Your task to perform on an android device: uninstall "Cash App" Image 0: 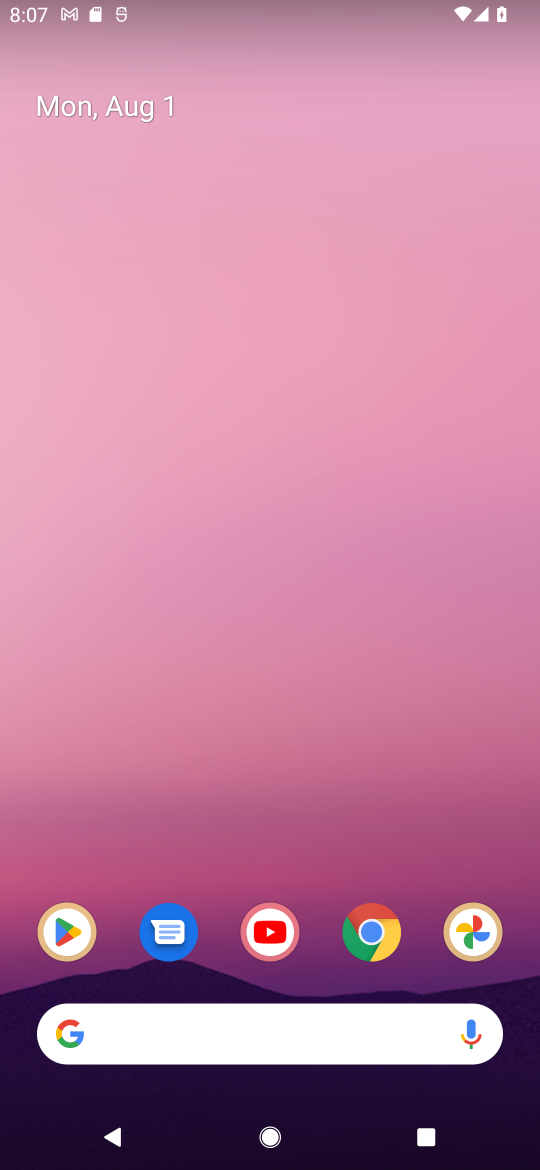
Step 0: click (71, 950)
Your task to perform on an android device: uninstall "Cash App" Image 1: 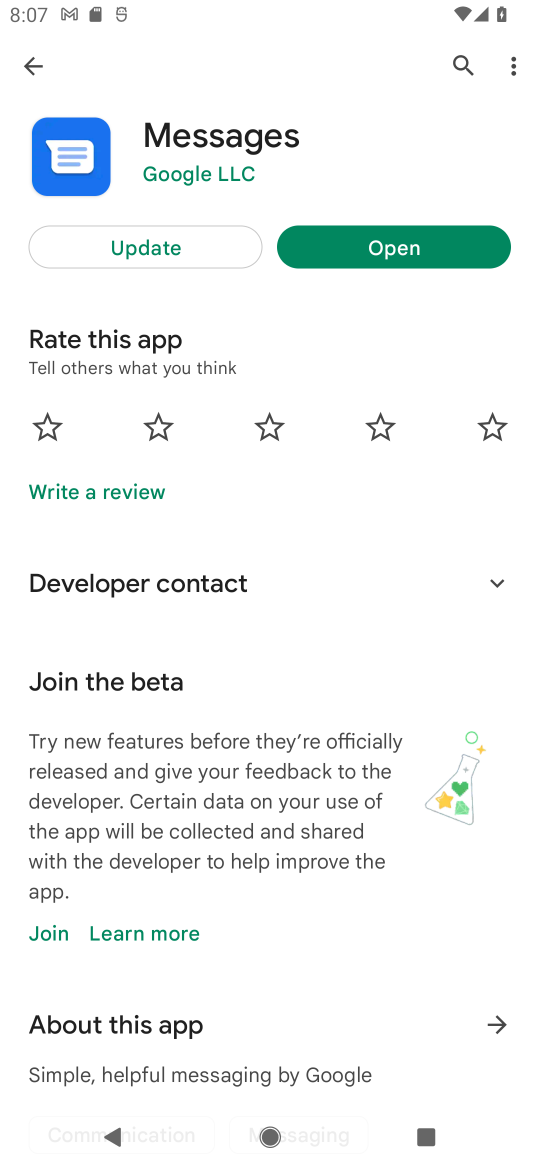
Step 1: click (25, 62)
Your task to perform on an android device: uninstall "Cash App" Image 2: 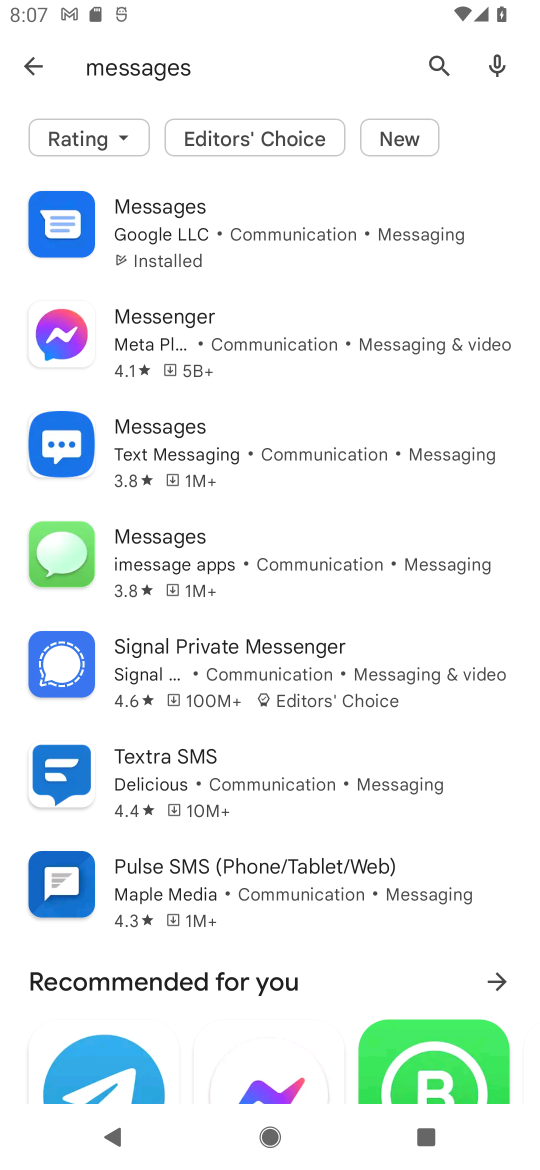
Step 2: click (38, 64)
Your task to perform on an android device: uninstall "Cash App" Image 3: 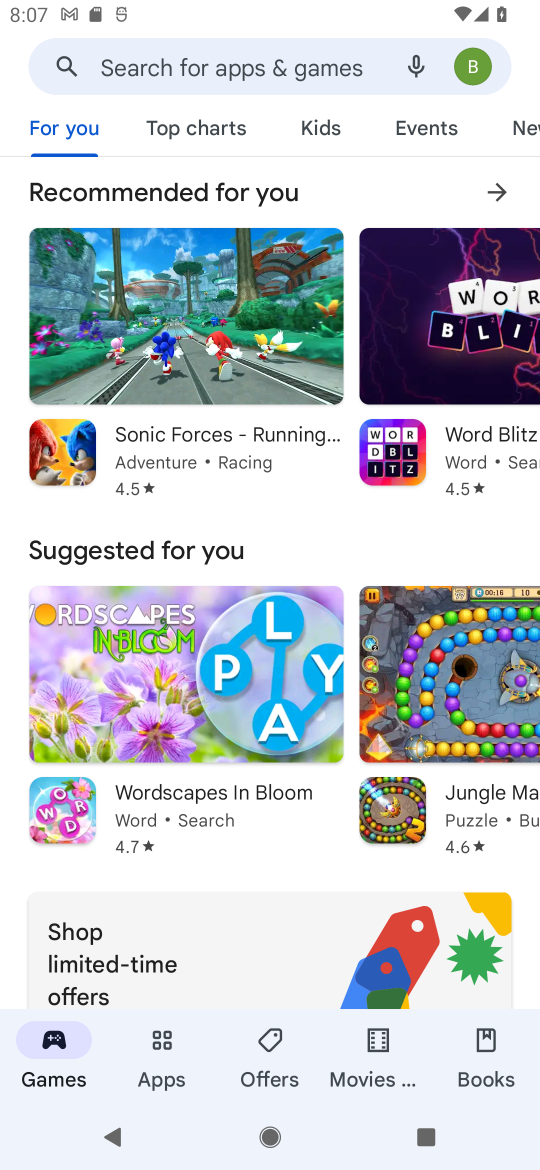
Step 3: click (180, 56)
Your task to perform on an android device: uninstall "Cash App" Image 4: 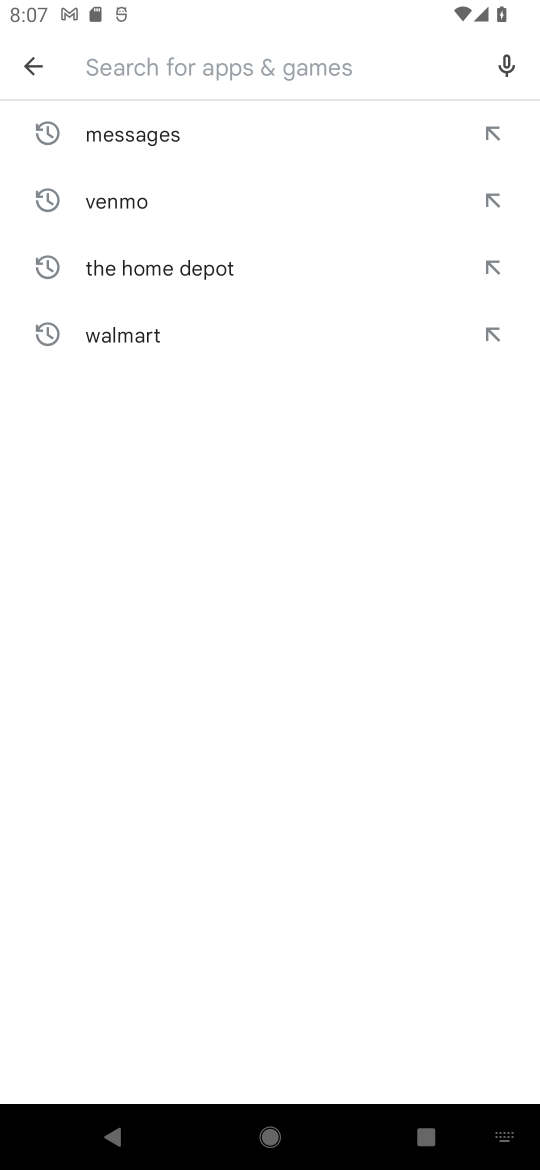
Step 4: type "cashapp"
Your task to perform on an android device: uninstall "Cash App" Image 5: 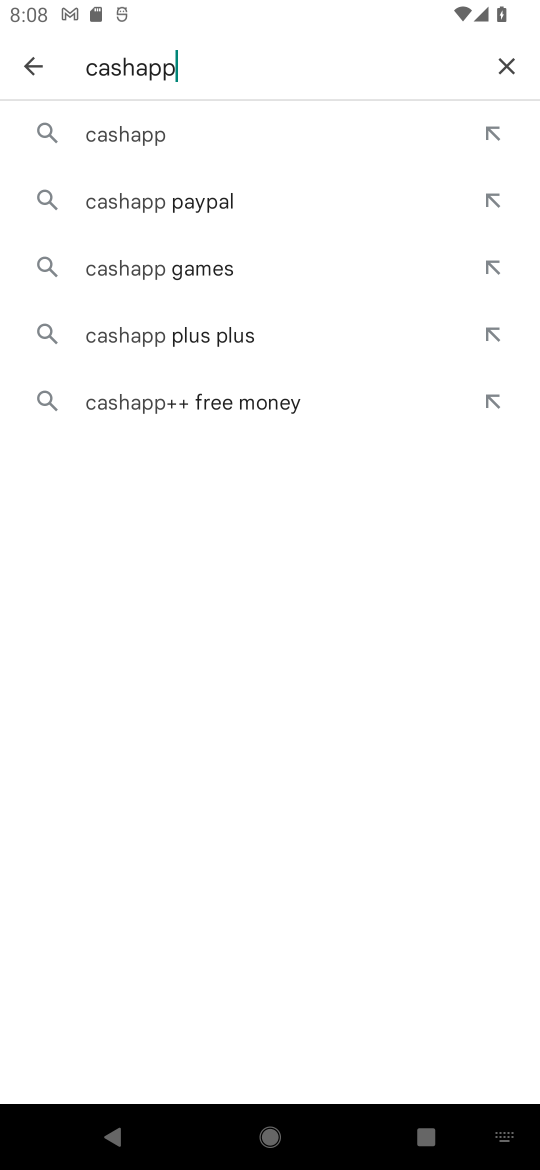
Step 5: click (151, 105)
Your task to perform on an android device: uninstall "Cash App" Image 6: 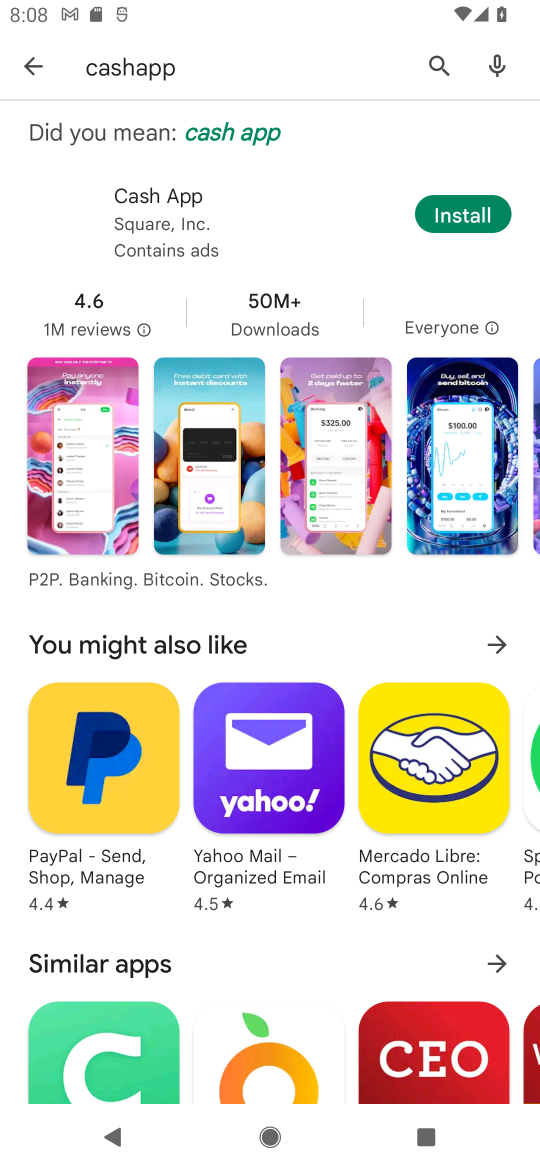
Step 6: task complete